Your task to perform on an android device: Go to Yahoo.com Image 0: 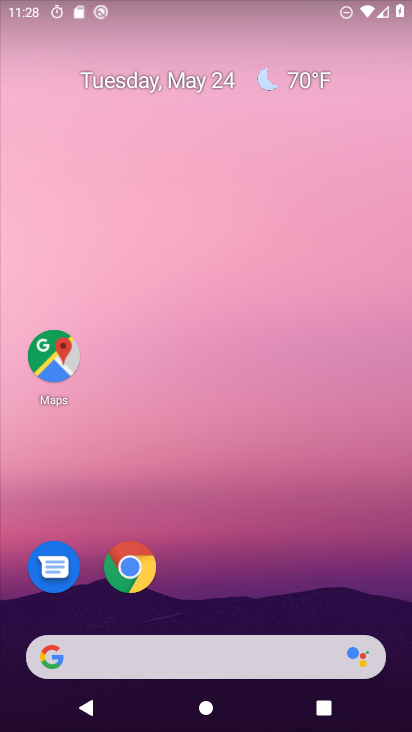
Step 0: click (131, 574)
Your task to perform on an android device: Go to Yahoo.com Image 1: 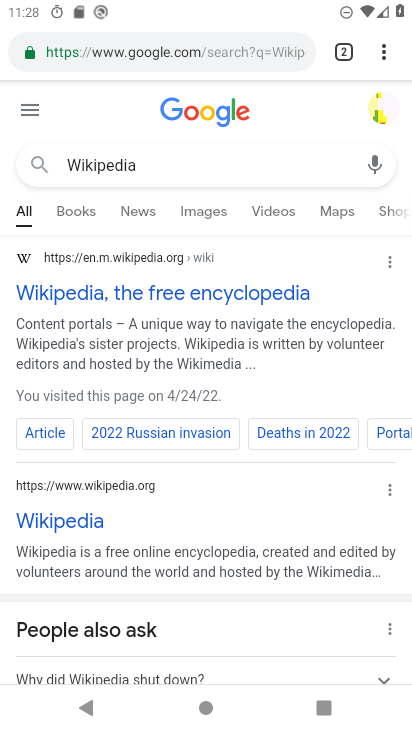
Step 1: click (303, 48)
Your task to perform on an android device: Go to Yahoo.com Image 2: 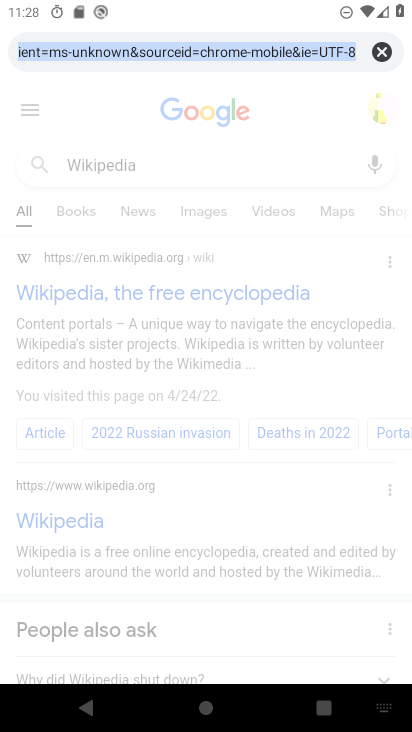
Step 2: click (388, 46)
Your task to perform on an android device: Go to Yahoo.com Image 3: 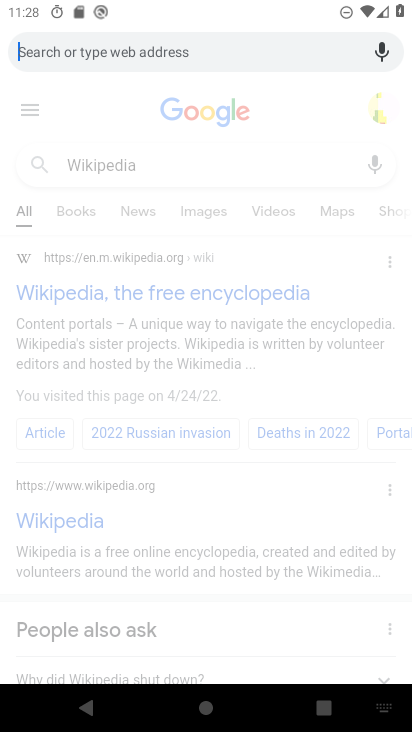
Step 3: type "Yahoo.com"
Your task to perform on an android device: Go to Yahoo.com Image 4: 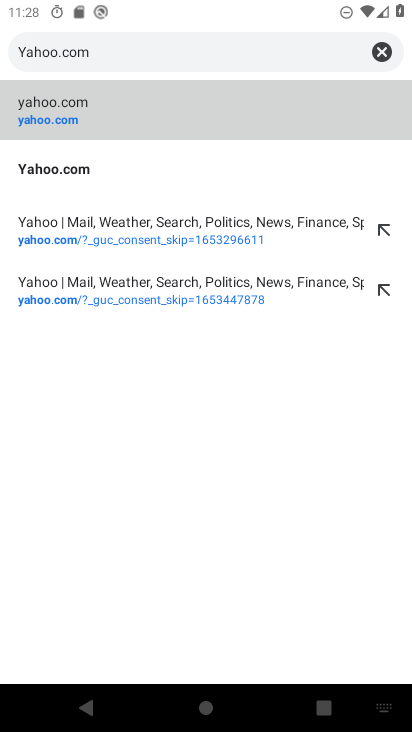
Step 4: click (60, 164)
Your task to perform on an android device: Go to Yahoo.com Image 5: 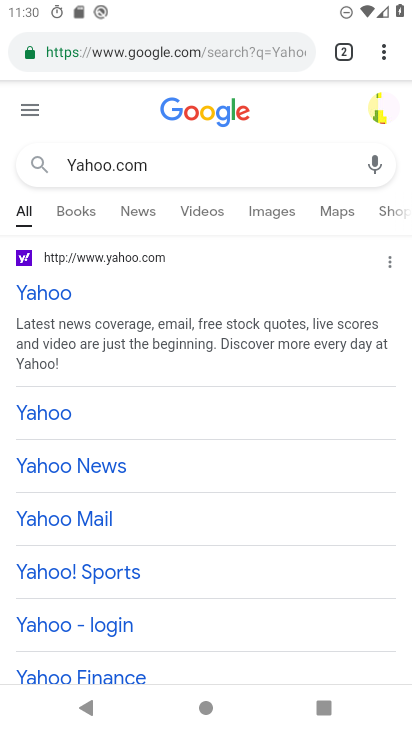
Step 5: task complete